Your task to perform on an android device: snooze an email in the gmail app Image 0: 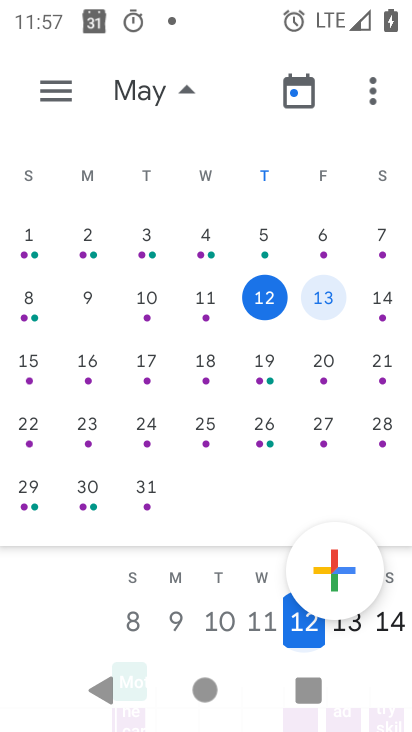
Step 0: press home button
Your task to perform on an android device: snooze an email in the gmail app Image 1: 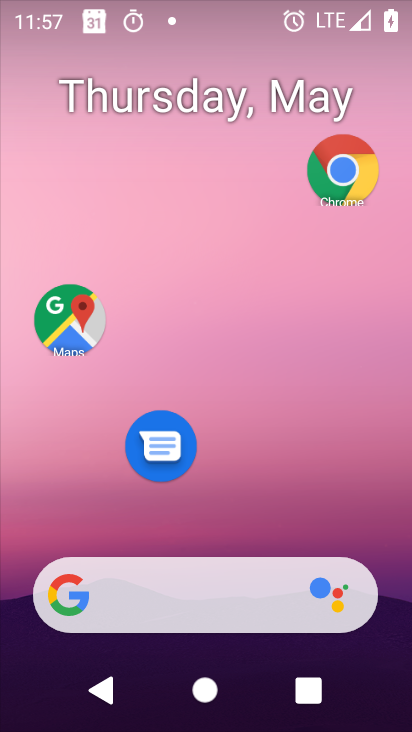
Step 1: drag from (299, 546) to (358, 18)
Your task to perform on an android device: snooze an email in the gmail app Image 2: 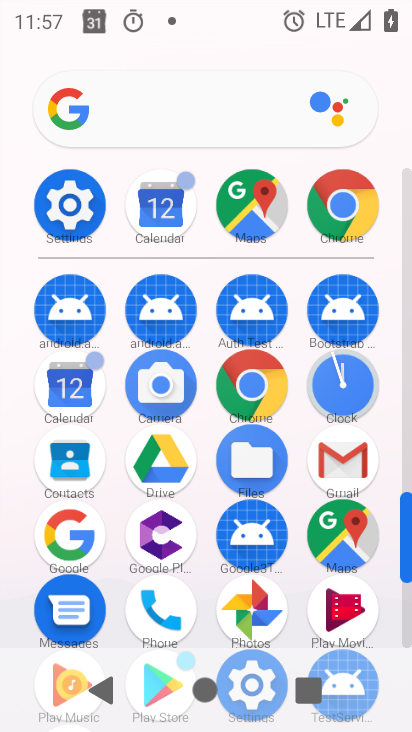
Step 2: click (352, 464)
Your task to perform on an android device: snooze an email in the gmail app Image 3: 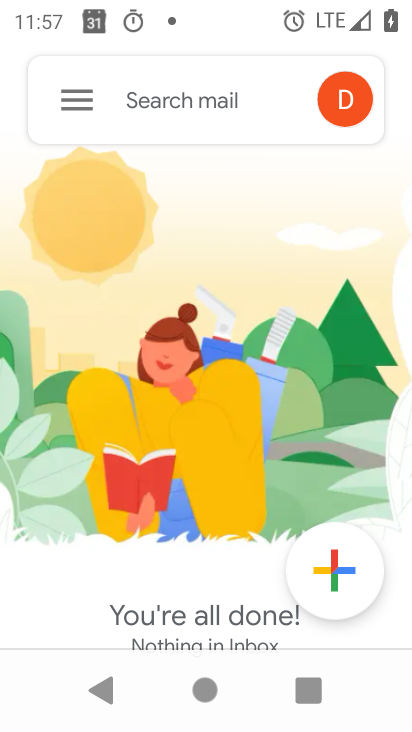
Step 3: click (66, 90)
Your task to perform on an android device: snooze an email in the gmail app Image 4: 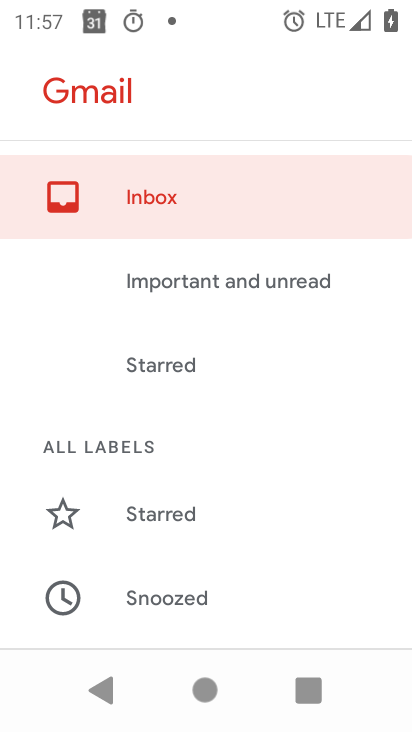
Step 4: drag from (180, 593) to (193, 321)
Your task to perform on an android device: snooze an email in the gmail app Image 5: 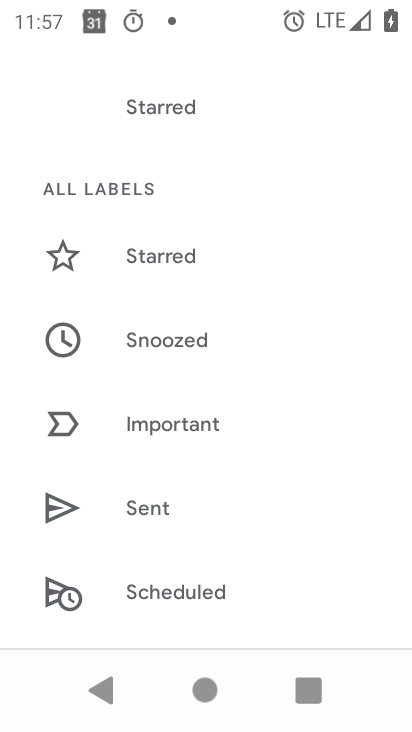
Step 5: click (179, 352)
Your task to perform on an android device: snooze an email in the gmail app Image 6: 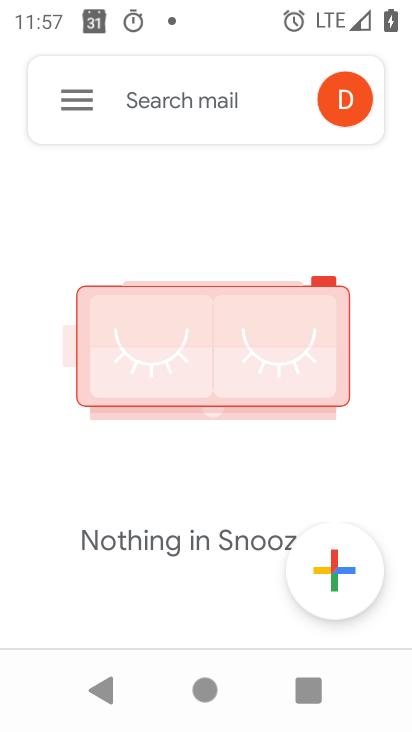
Step 6: task complete